Your task to perform on an android device: Go to network settings Image 0: 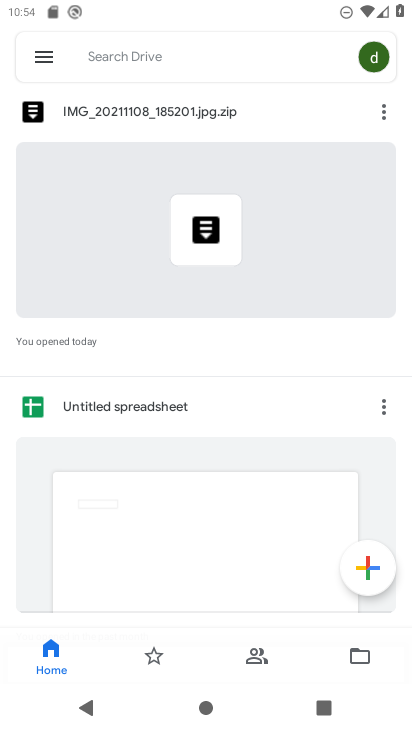
Step 0: press home button
Your task to perform on an android device: Go to network settings Image 1: 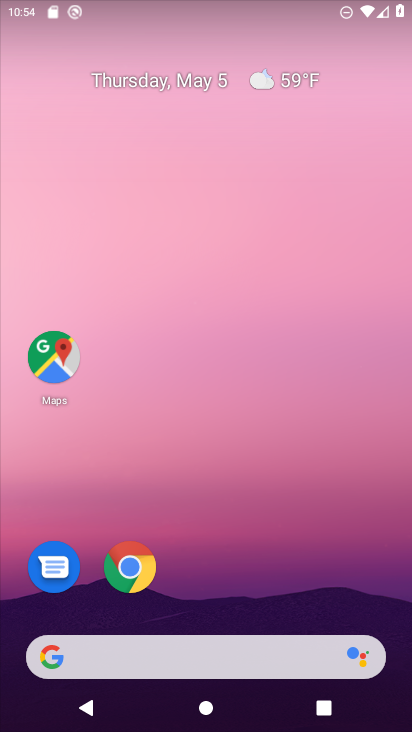
Step 1: drag from (215, 569) to (65, 131)
Your task to perform on an android device: Go to network settings Image 2: 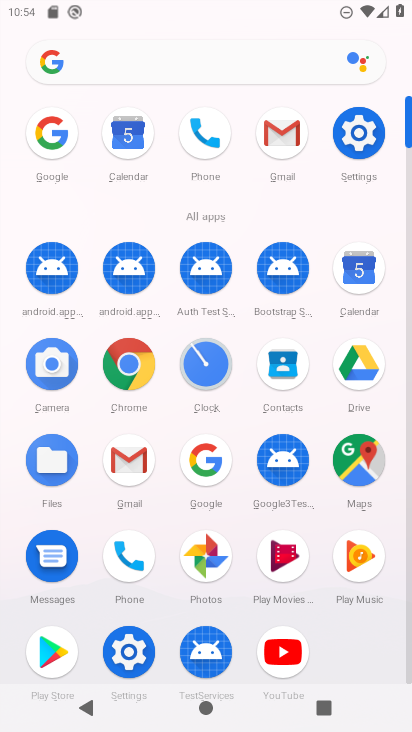
Step 2: click (357, 141)
Your task to perform on an android device: Go to network settings Image 3: 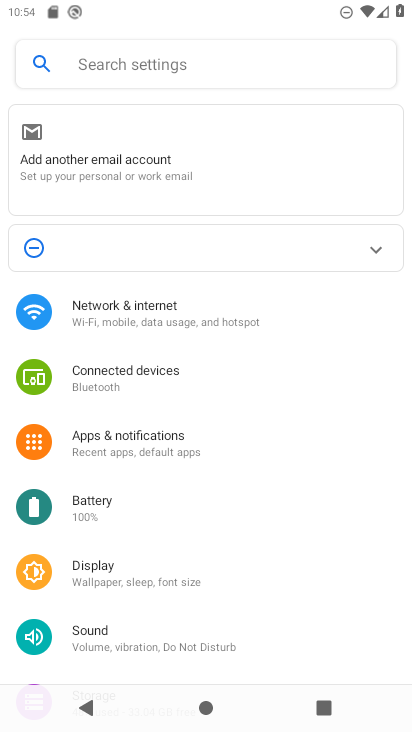
Step 3: click (98, 331)
Your task to perform on an android device: Go to network settings Image 4: 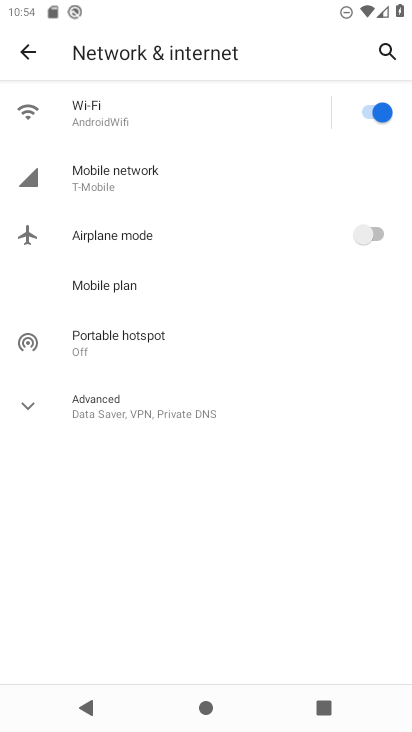
Step 4: click (136, 169)
Your task to perform on an android device: Go to network settings Image 5: 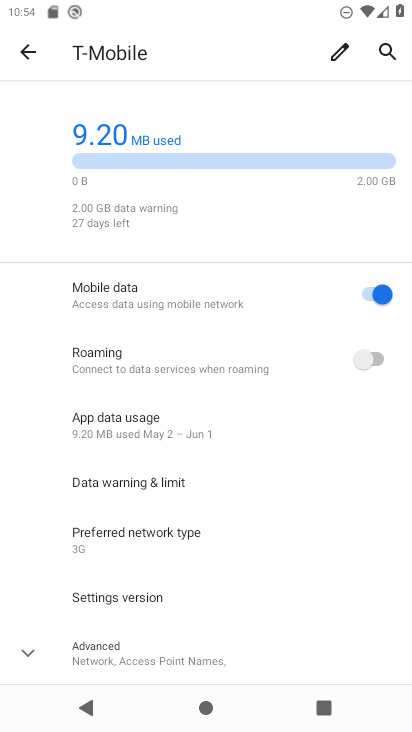
Step 5: click (157, 428)
Your task to perform on an android device: Go to network settings Image 6: 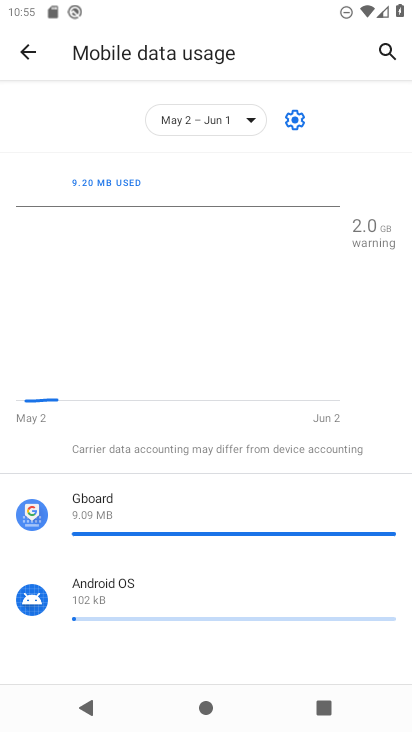
Step 6: task complete